Your task to perform on an android device: Open battery settings Image 0: 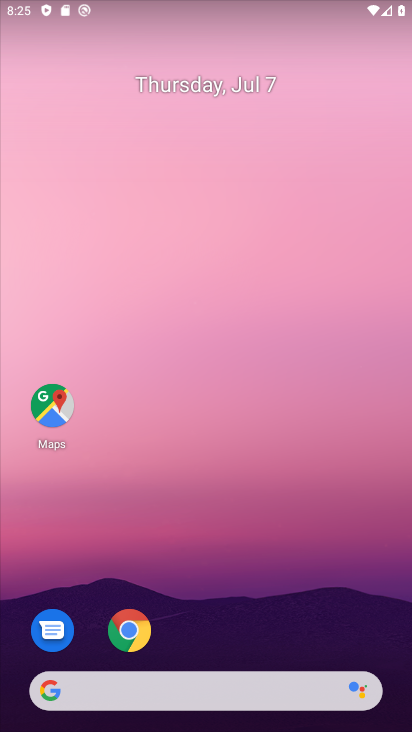
Step 0: drag from (225, 576) to (193, 164)
Your task to perform on an android device: Open battery settings Image 1: 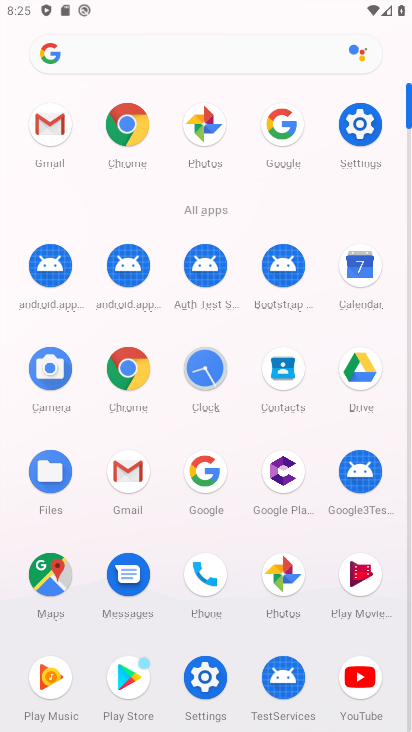
Step 1: click (368, 128)
Your task to perform on an android device: Open battery settings Image 2: 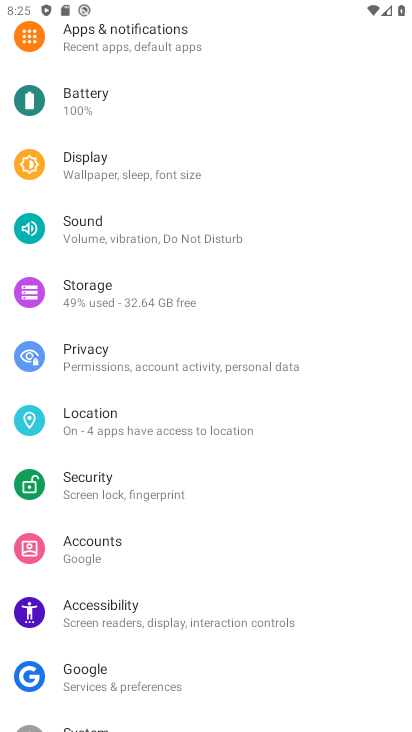
Step 2: click (108, 109)
Your task to perform on an android device: Open battery settings Image 3: 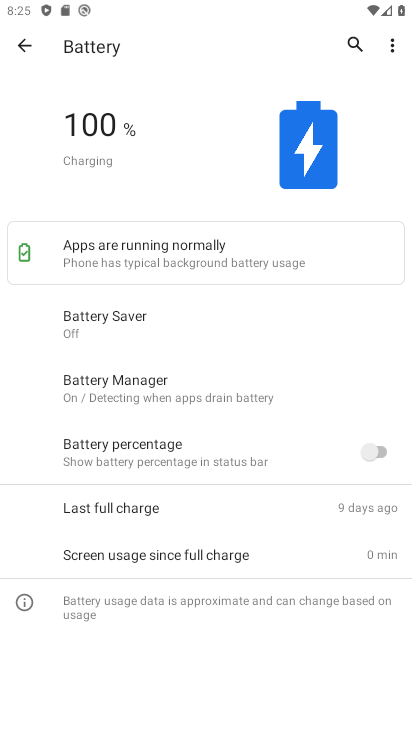
Step 3: task complete